Your task to perform on an android device: stop showing notifications on the lock screen Image 0: 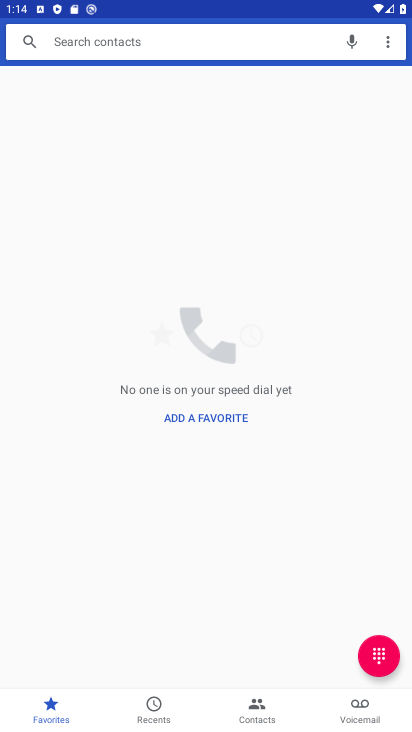
Step 0: press home button
Your task to perform on an android device: stop showing notifications on the lock screen Image 1: 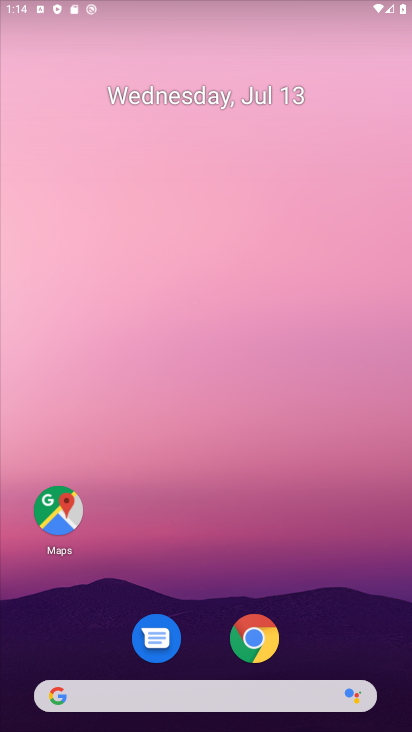
Step 1: drag from (254, 720) to (317, 0)
Your task to perform on an android device: stop showing notifications on the lock screen Image 2: 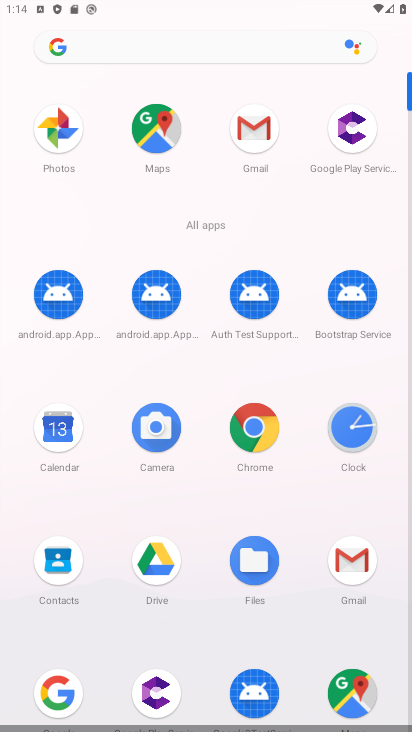
Step 2: drag from (223, 341) to (223, 88)
Your task to perform on an android device: stop showing notifications on the lock screen Image 3: 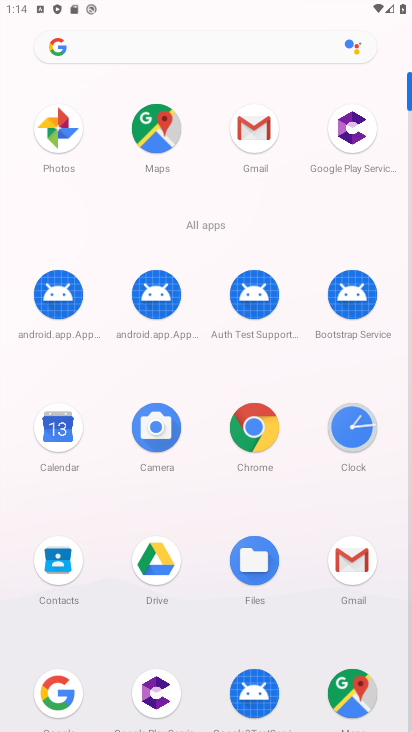
Step 3: drag from (180, 589) to (219, 98)
Your task to perform on an android device: stop showing notifications on the lock screen Image 4: 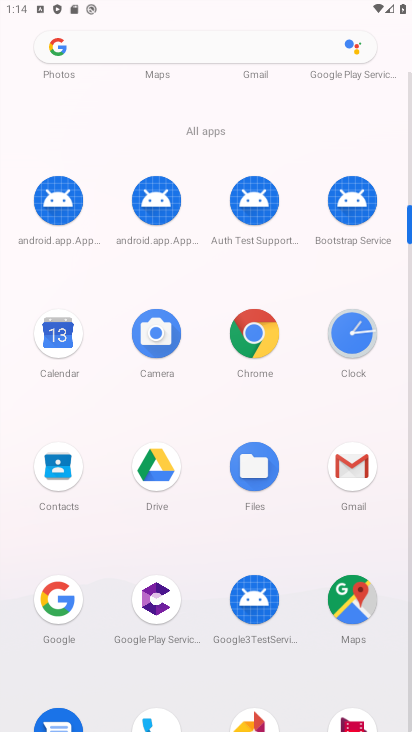
Step 4: drag from (188, 643) to (246, 129)
Your task to perform on an android device: stop showing notifications on the lock screen Image 5: 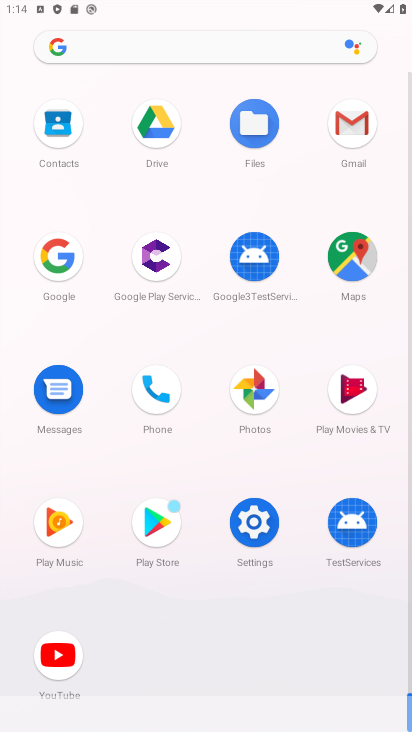
Step 5: click (244, 535)
Your task to perform on an android device: stop showing notifications on the lock screen Image 6: 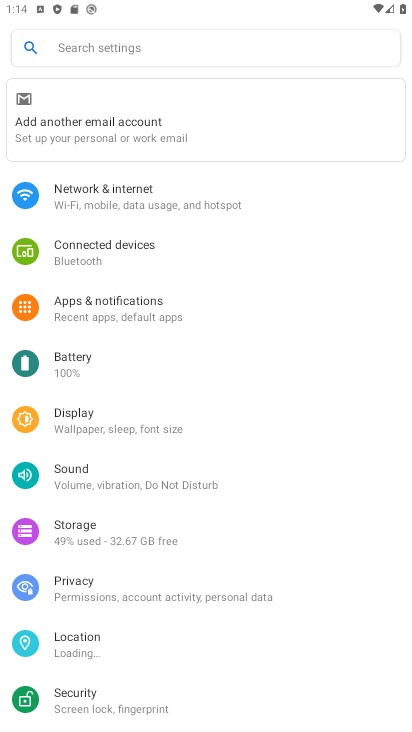
Step 6: click (142, 310)
Your task to perform on an android device: stop showing notifications on the lock screen Image 7: 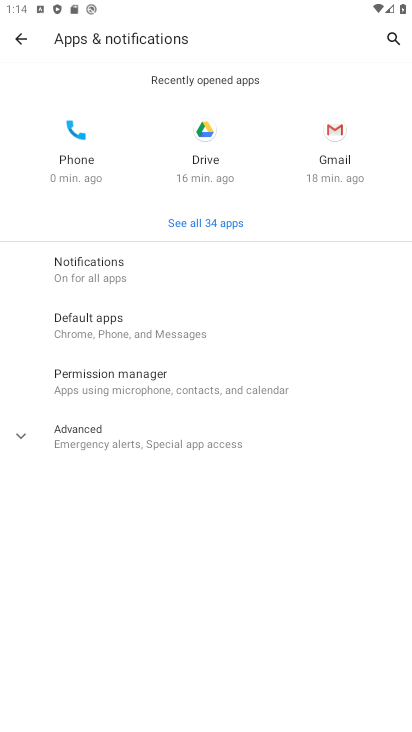
Step 7: click (138, 278)
Your task to perform on an android device: stop showing notifications on the lock screen Image 8: 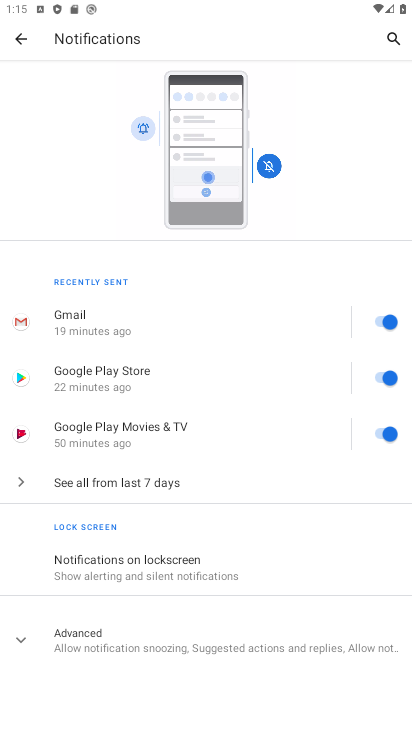
Step 8: click (211, 559)
Your task to perform on an android device: stop showing notifications on the lock screen Image 9: 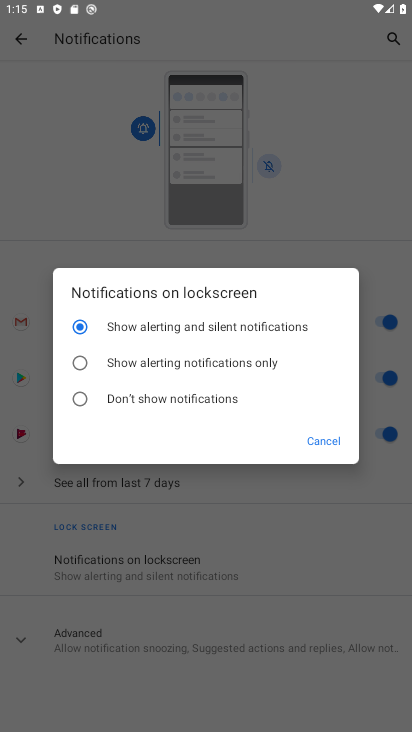
Step 9: click (155, 408)
Your task to perform on an android device: stop showing notifications on the lock screen Image 10: 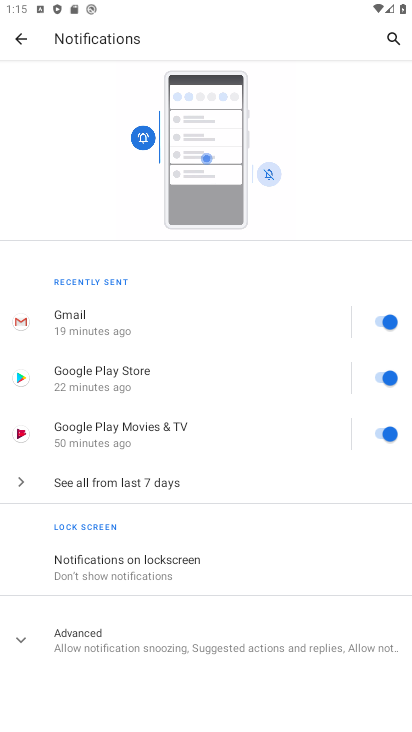
Step 10: task complete